Your task to perform on an android device: change the clock display to show seconds Image 0: 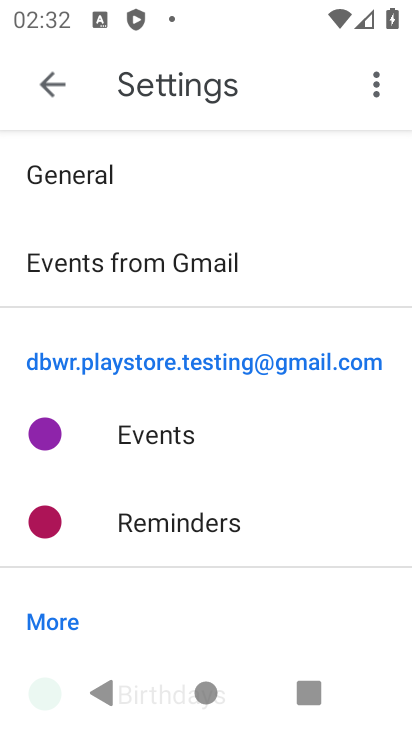
Step 0: press home button
Your task to perform on an android device: change the clock display to show seconds Image 1: 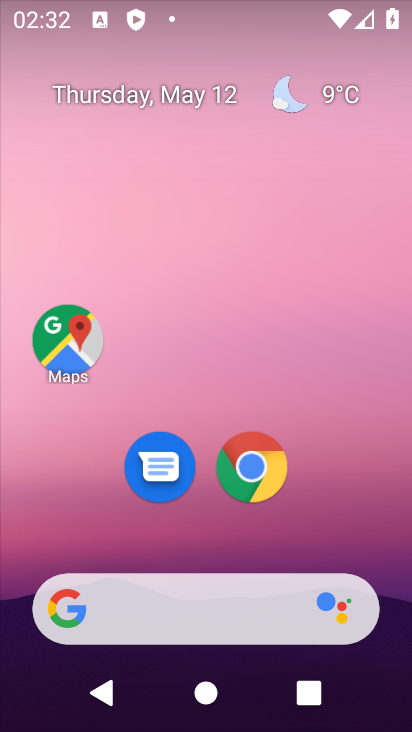
Step 1: drag from (287, 508) to (278, 170)
Your task to perform on an android device: change the clock display to show seconds Image 2: 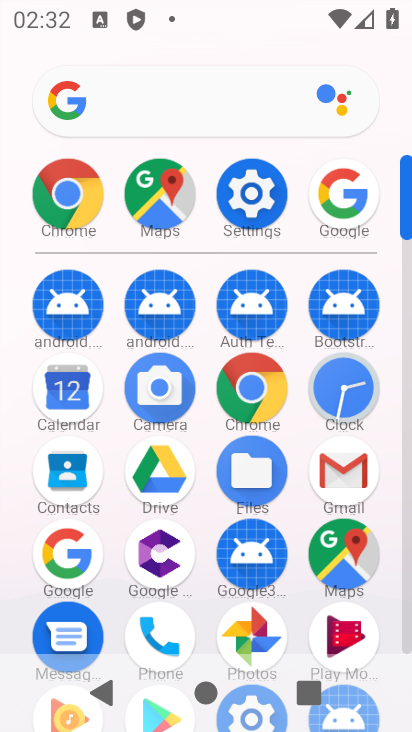
Step 2: click (331, 389)
Your task to perform on an android device: change the clock display to show seconds Image 3: 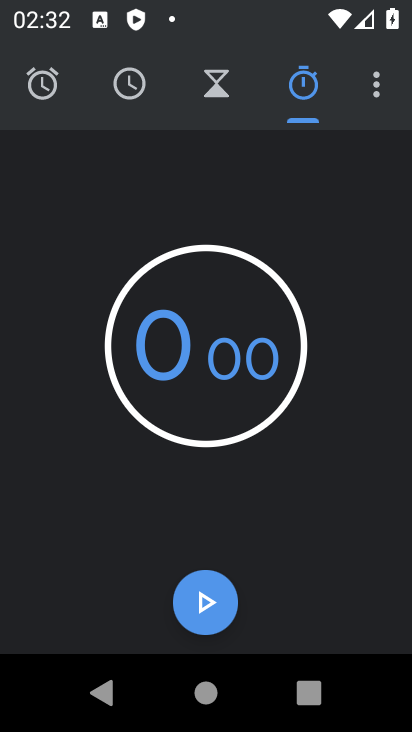
Step 3: click (357, 95)
Your task to perform on an android device: change the clock display to show seconds Image 4: 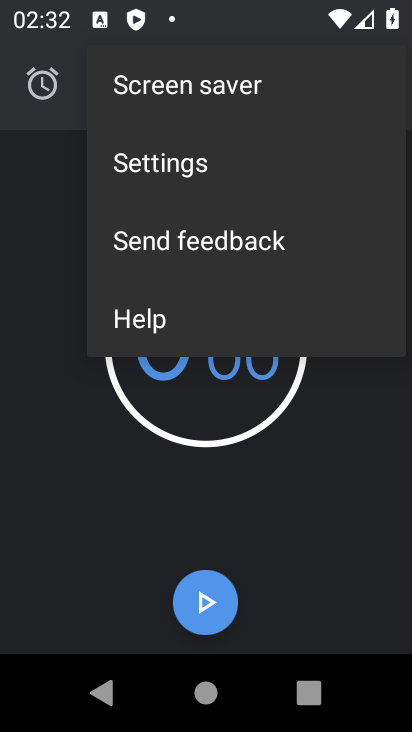
Step 4: click (196, 156)
Your task to perform on an android device: change the clock display to show seconds Image 5: 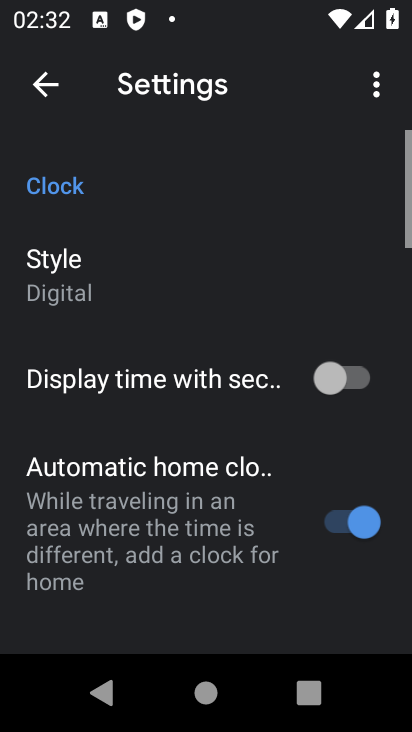
Step 5: click (360, 371)
Your task to perform on an android device: change the clock display to show seconds Image 6: 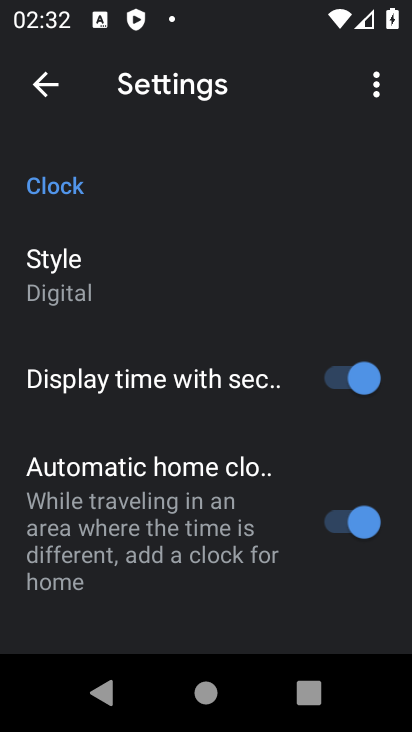
Step 6: task complete